Your task to perform on an android device: change your default location settings in chrome Image 0: 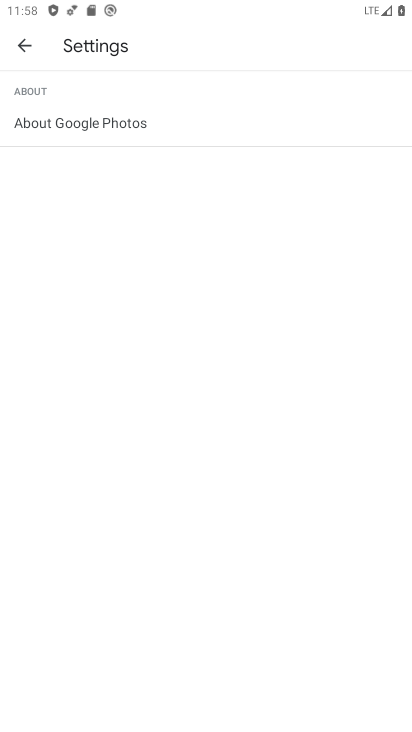
Step 0: press home button
Your task to perform on an android device: change your default location settings in chrome Image 1: 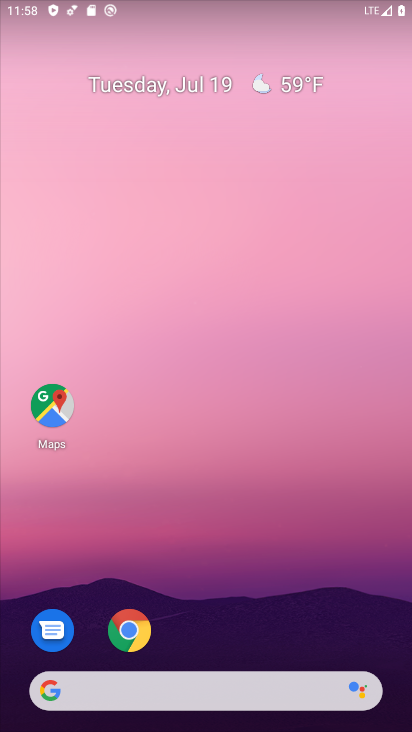
Step 1: drag from (299, 645) to (326, 386)
Your task to perform on an android device: change your default location settings in chrome Image 2: 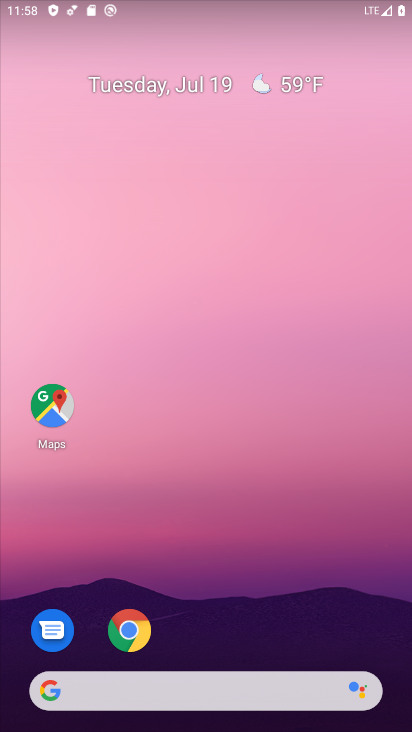
Step 2: drag from (205, 663) to (230, 472)
Your task to perform on an android device: change your default location settings in chrome Image 3: 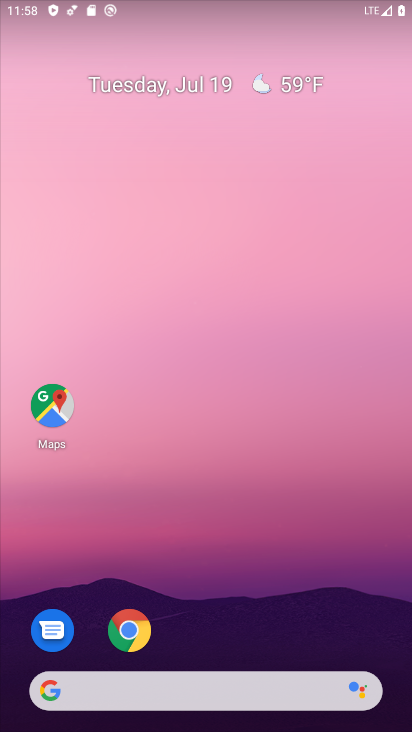
Step 3: drag from (269, 583) to (328, 6)
Your task to perform on an android device: change your default location settings in chrome Image 4: 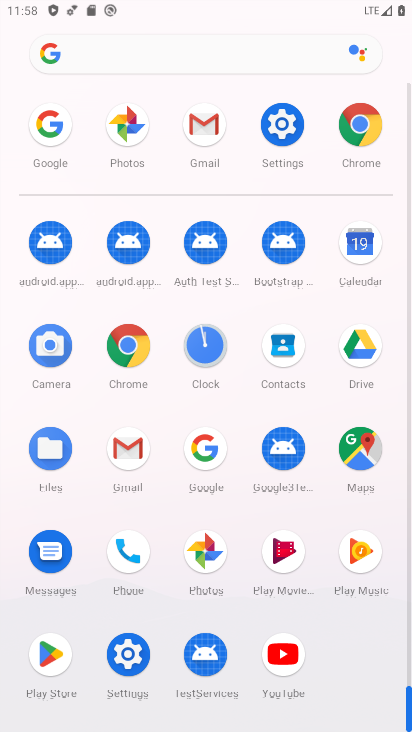
Step 4: click (129, 374)
Your task to perform on an android device: change your default location settings in chrome Image 5: 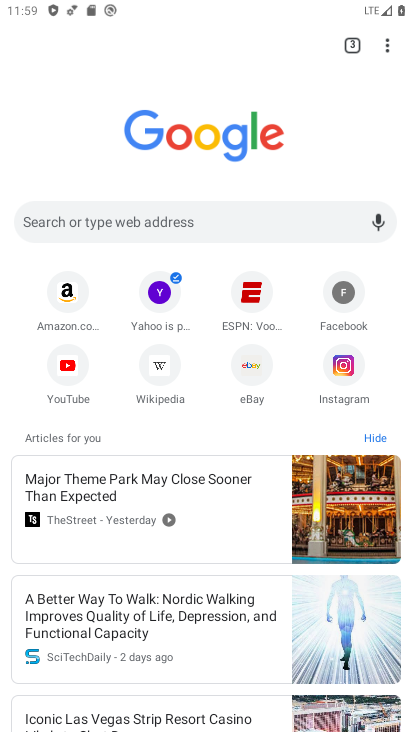
Step 5: click (389, 53)
Your task to perform on an android device: change your default location settings in chrome Image 6: 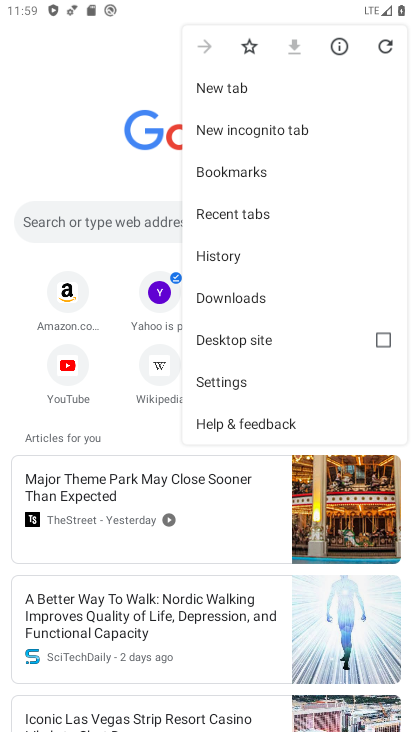
Step 6: click (243, 386)
Your task to perform on an android device: change your default location settings in chrome Image 7: 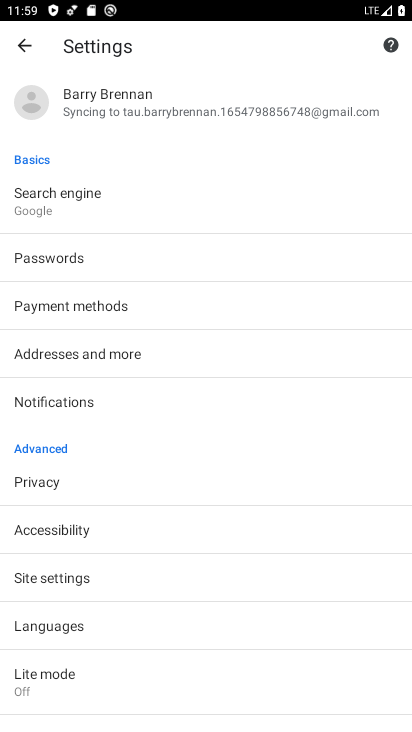
Step 7: click (99, 572)
Your task to perform on an android device: change your default location settings in chrome Image 8: 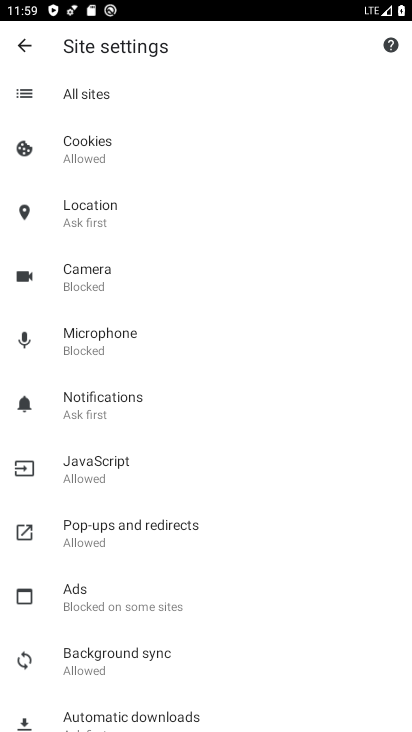
Step 8: click (128, 203)
Your task to perform on an android device: change your default location settings in chrome Image 9: 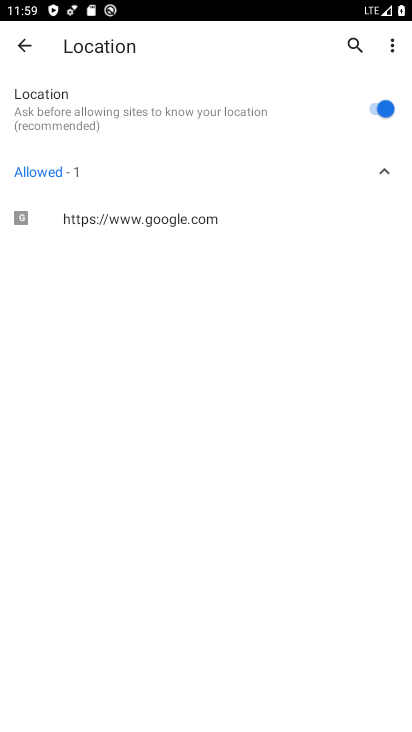
Step 9: click (371, 108)
Your task to perform on an android device: change your default location settings in chrome Image 10: 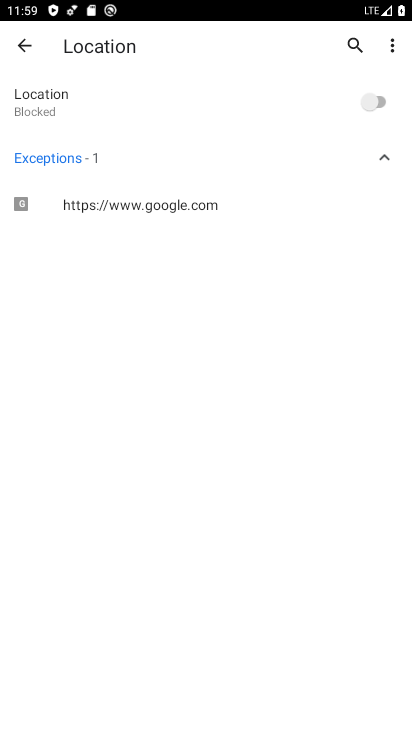
Step 10: task complete